Your task to perform on an android device: Open Android settings Image 0: 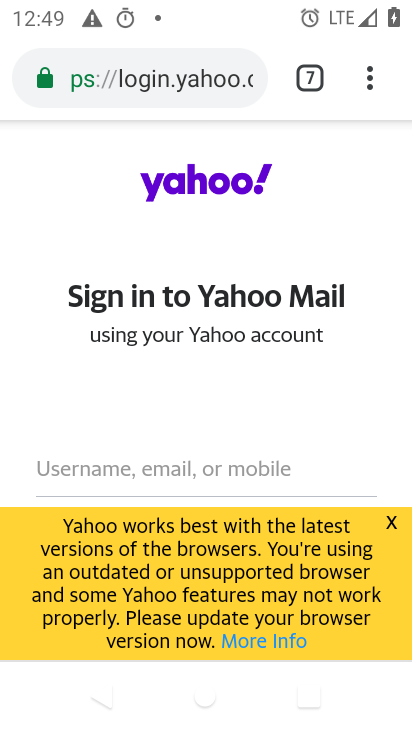
Step 0: press back button
Your task to perform on an android device: Open Android settings Image 1: 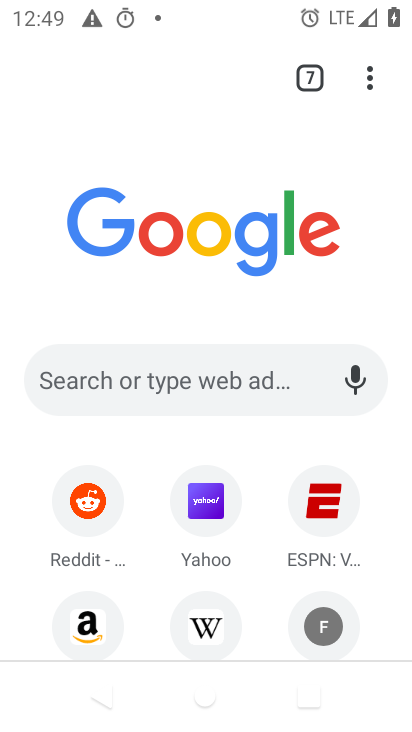
Step 1: press back button
Your task to perform on an android device: Open Android settings Image 2: 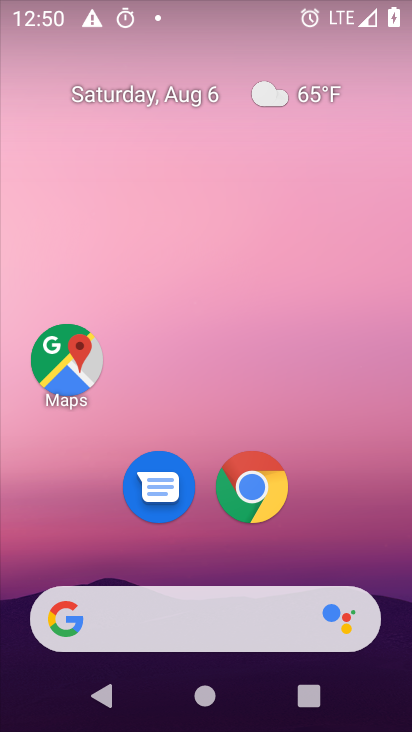
Step 2: drag from (191, 491) to (283, 16)
Your task to perform on an android device: Open Android settings Image 3: 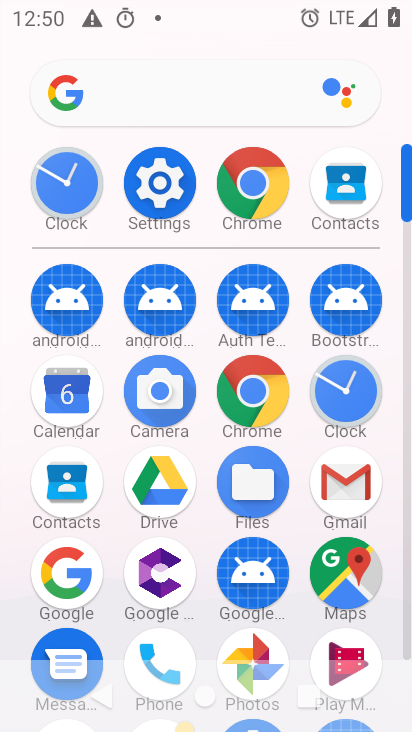
Step 3: click (146, 193)
Your task to perform on an android device: Open Android settings Image 4: 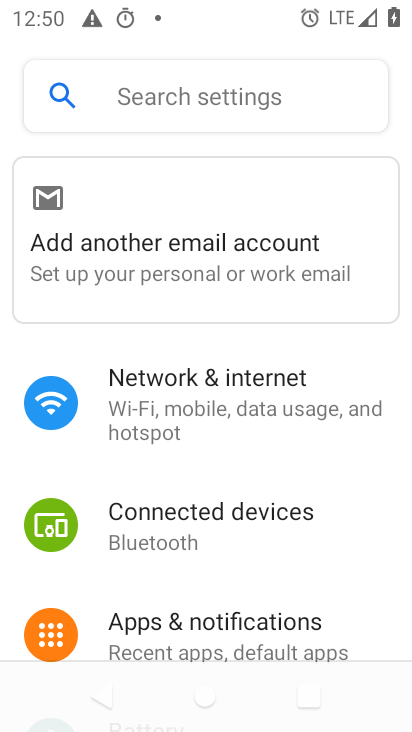
Step 4: drag from (192, 584) to (328, 0)
Your task to perform on an android device: Open Android settings Image 5: 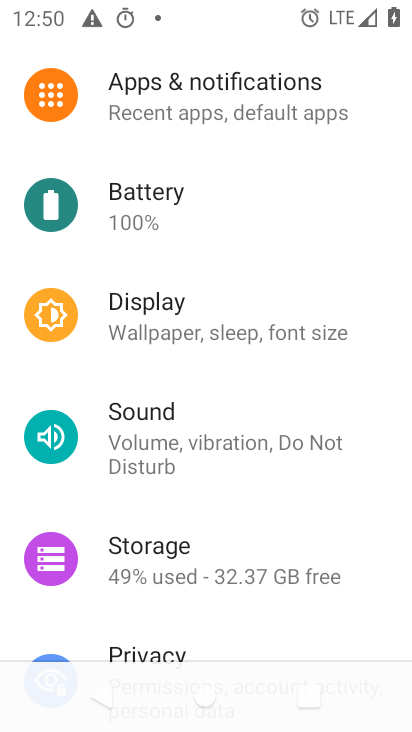
Step 5: drag from (135, 552) to (175, 2)
Your task to perform on an android device: Open Android settings Image 6: 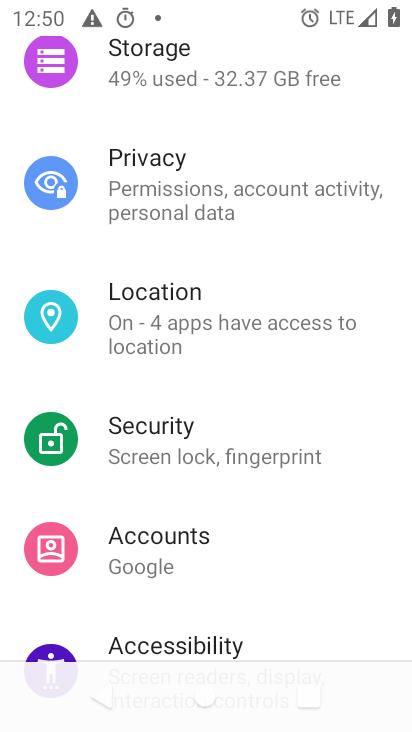
Step 6: drag from (196, 543) to (334, 35)
Your task to perform on an android device: Open Android settings Image 7: 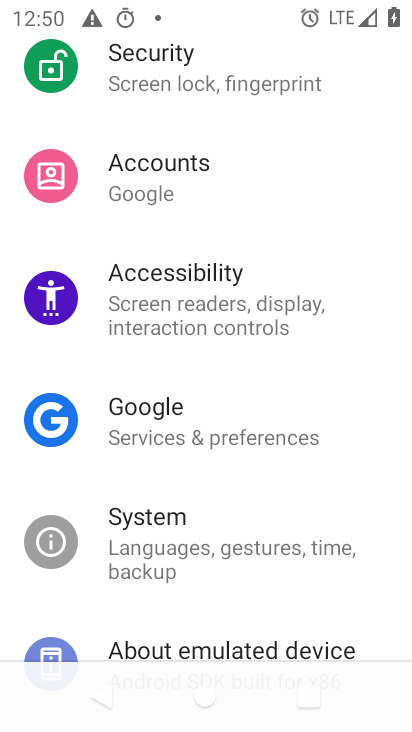
Step 7: drag from (229, 603) to (348, 23)
Your task to perform on an android device: Open Android settings Image 8: 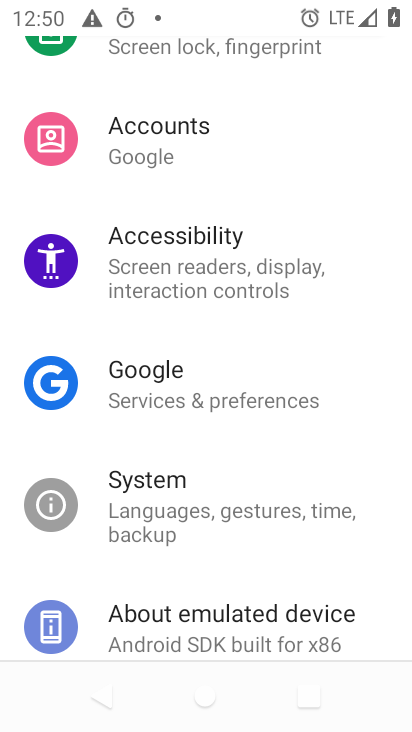
Step 8: click (208, 618)
Your task to perform on an android device: Open Android settings Image 9: 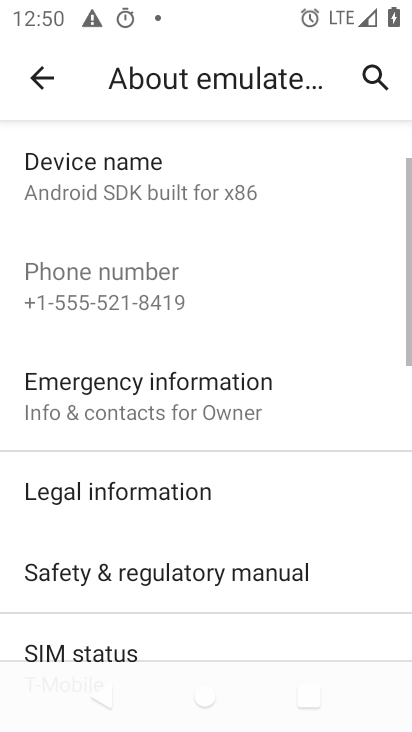
Step 9: task complete